Your task to perform on an android device: Search for sushi restaurants on Maps Image 0: 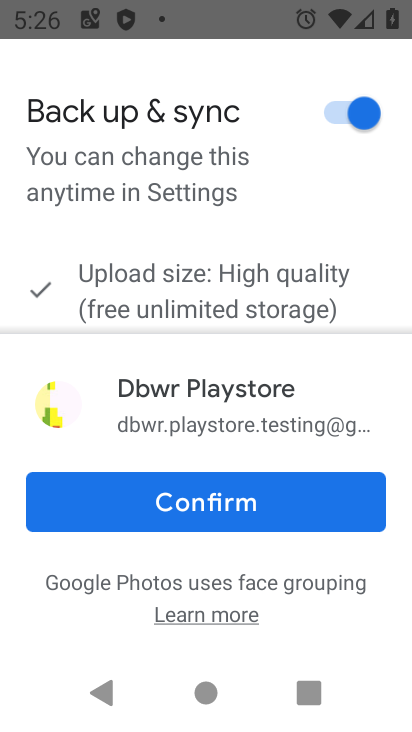
Step 0: press home button
Your task to perform on an android device: Search for sushi restaurants on Maps Image 1: 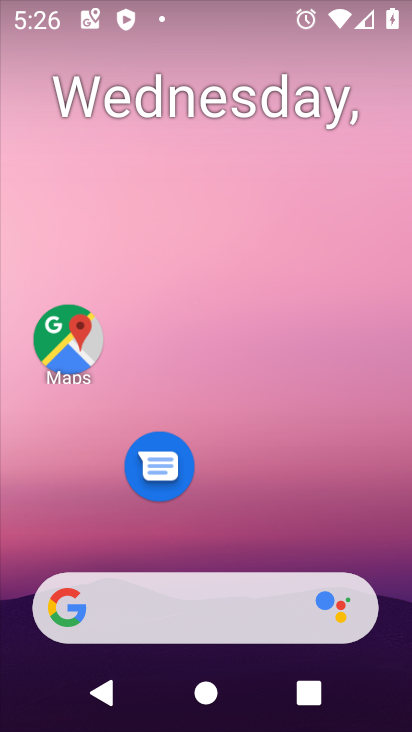
Step 1: drag from (284, 451) to (296, 95)
Your task to perform on an android device: Search for sushi restaurants on Maps Image 2: 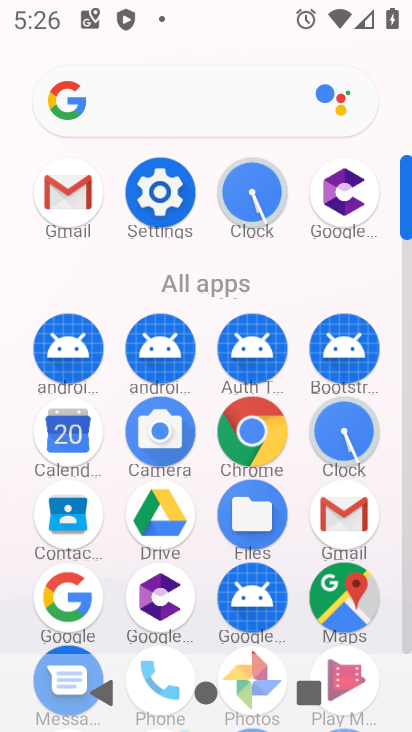
Step 2: click (360, 599)
Your task to perform on an android device: Search for sushi restaurants on Maps Image 3: 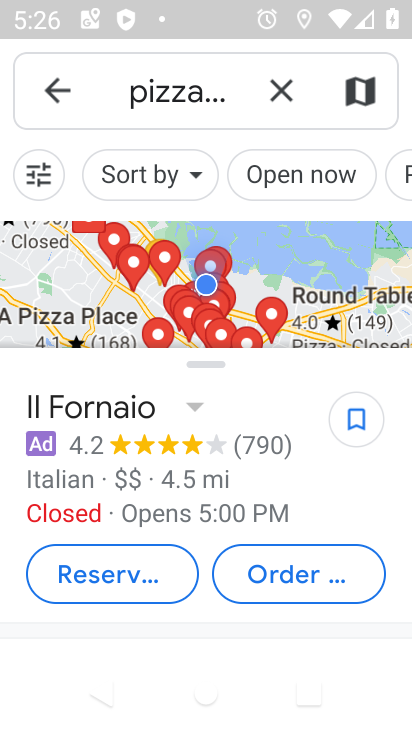
Step 3: click (287, 89)
Your task to perform on an android device: Search for sushi restaurants on Maps Image 4: 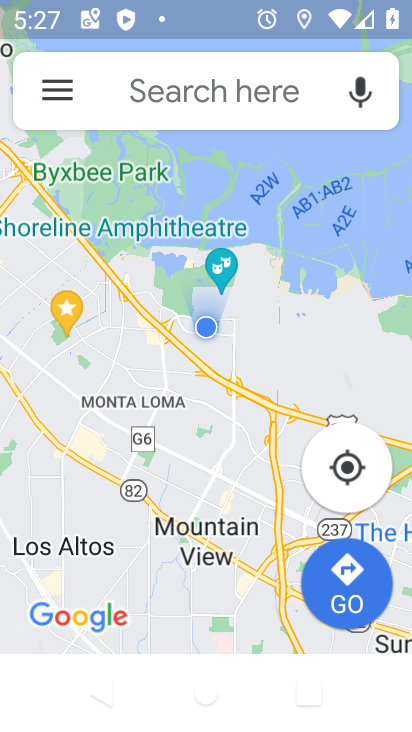
Step 4: click (150, 84)
Your task to perform on an android device: Search for sushi restaurants on Maps Image 5: 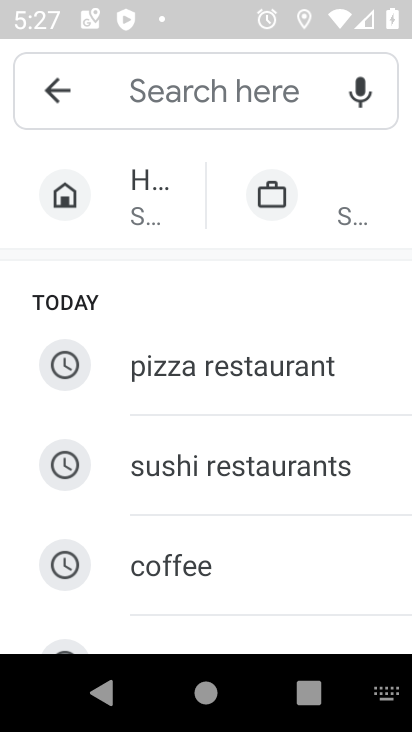
Step 5: type "sushi restaurants"
Your task to perform on an android device: Search for sushi restaurants on Maps Image 6: 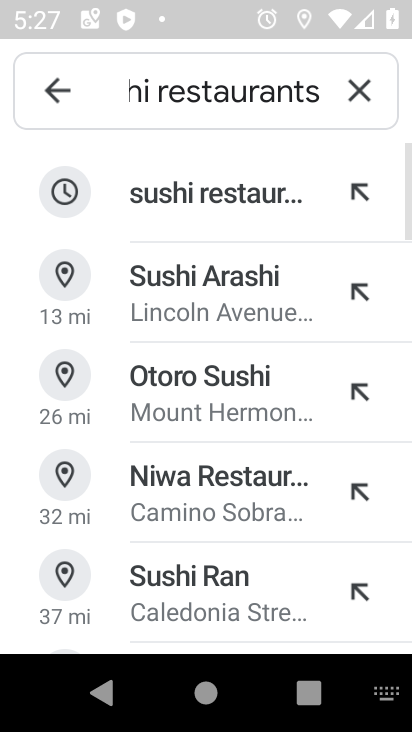
Step 6: click (152, 193)
Your task to perform on an android device: Search for sushi restaurants on Maps Image 7: 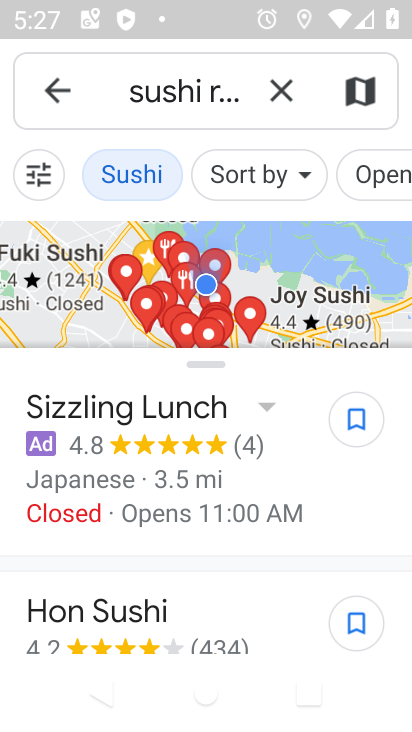
Step 7: task complete